Your task to perform on an android device: Go to accessibility settings Image 0: 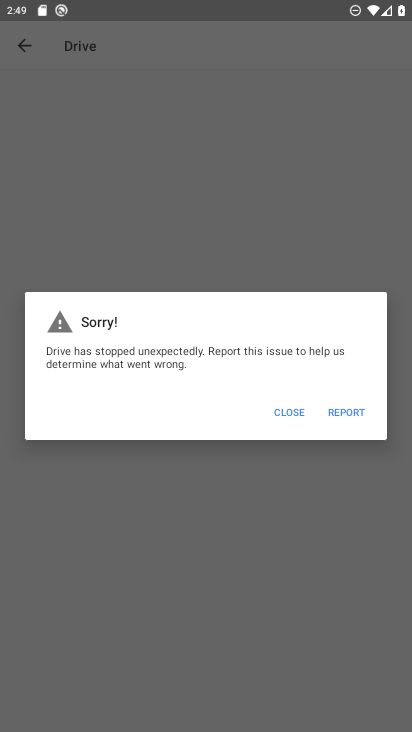
Step 0: press home button
Your task to perform on an android device: Go to accessibility settings Image 1: 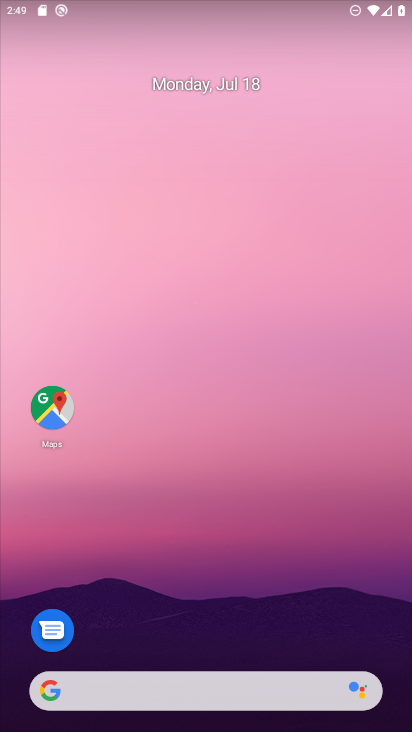
Step 1: drag from (296, 560) to (392, 91)
Your task to perform on an android device: Go to accessibility settings Image 2: 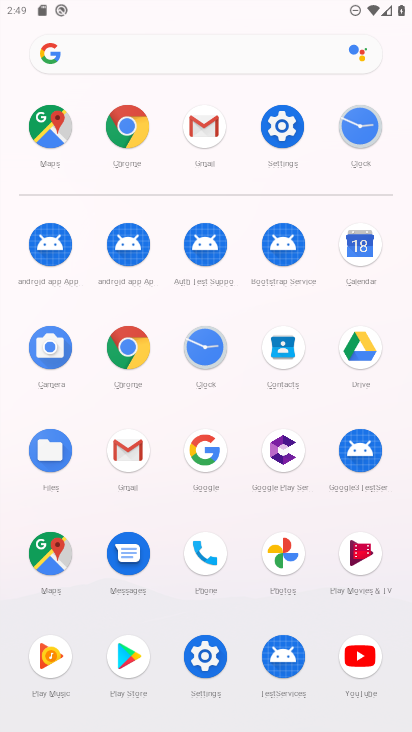
Step 2: click (283, 120)
Your task to perform on an android device: Go to accessibility settings Image 3: 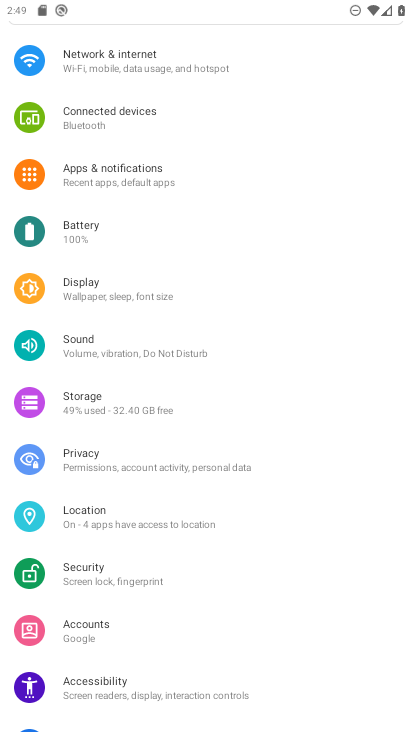
Step 3: click (138, 690)
Your task to perform on an android device: Go to accessibility settings Image 4: 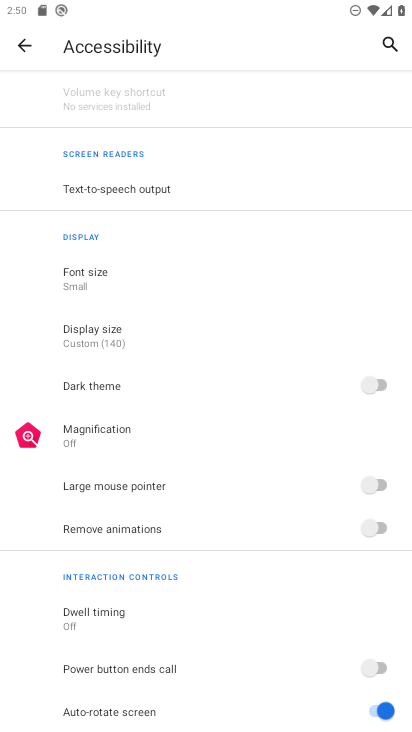
Step 4: task complete